Your task to perform on an android device: check android version Image 0: 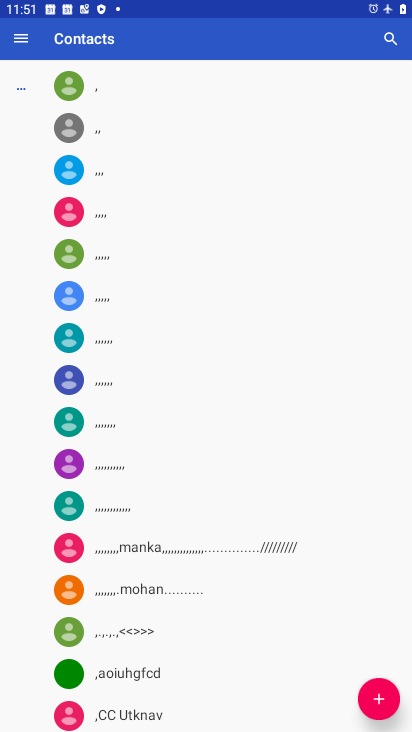
Step 0: press home button
Your task to perform on an android device: check android version Image 1: 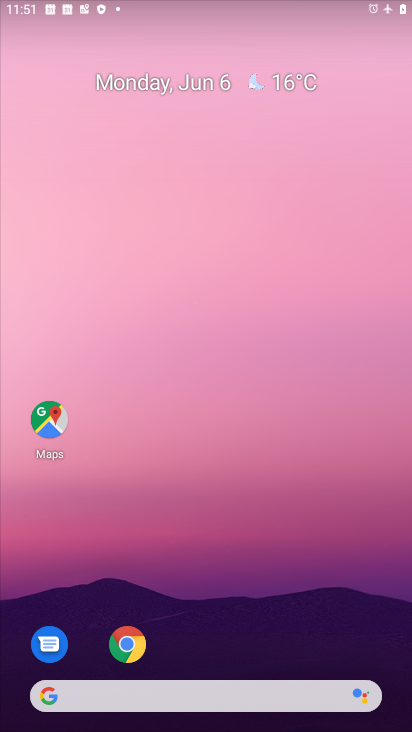
Step 1: drag from (290, 576) to (276, 49)
Your task to perform on an android device: check android version Image 2: 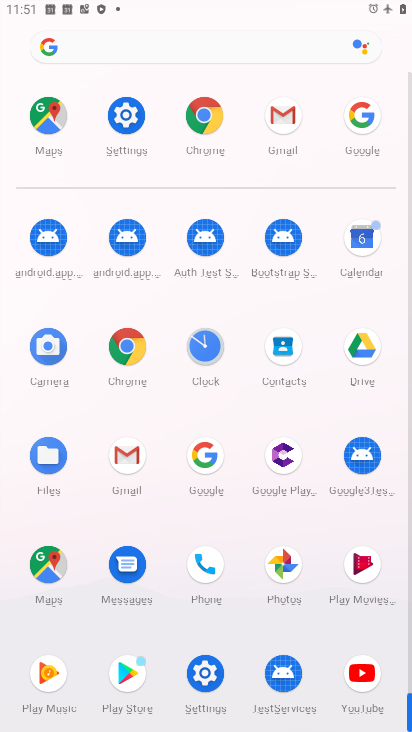
Step 2: click (194, 669)
Your task to perform on an android device: check android version Image 3: 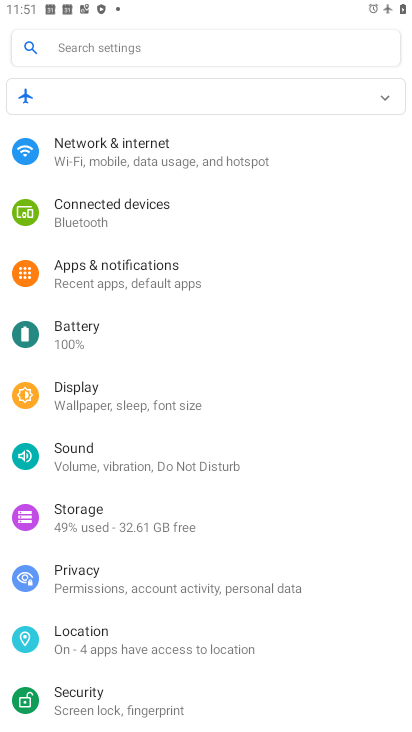
Step 3: drag from (295, 544) to (330, 51)
Your task to perform on an android device: check android version Image 4: 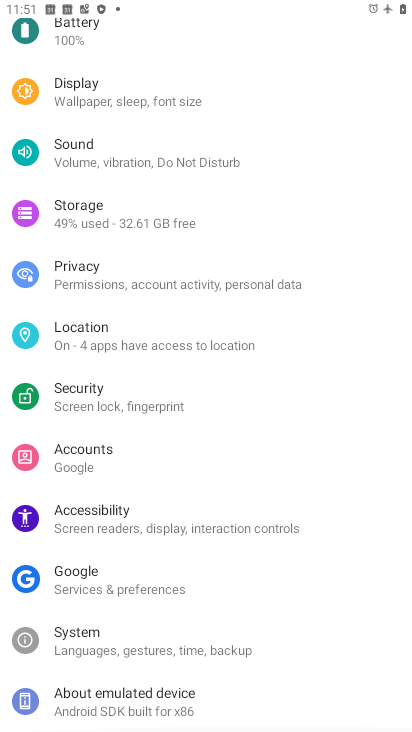
Step 4: drag from (244, 543) to (240, 308)
Your task to perform on an android device: check android version Image 5: 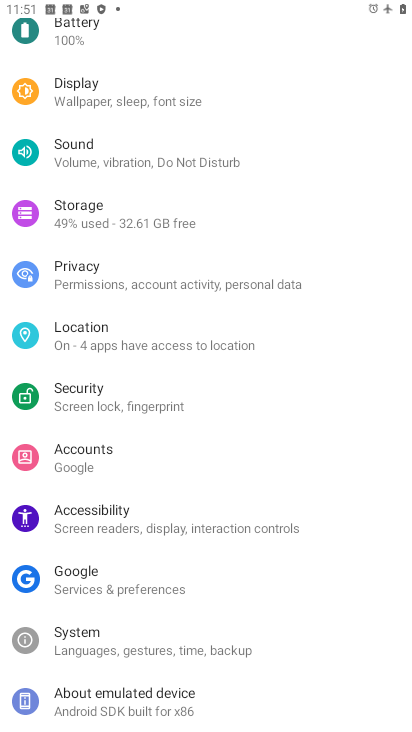
Step 5: click (187, 691)
Your task to perform on an android device: check android version Image 6: 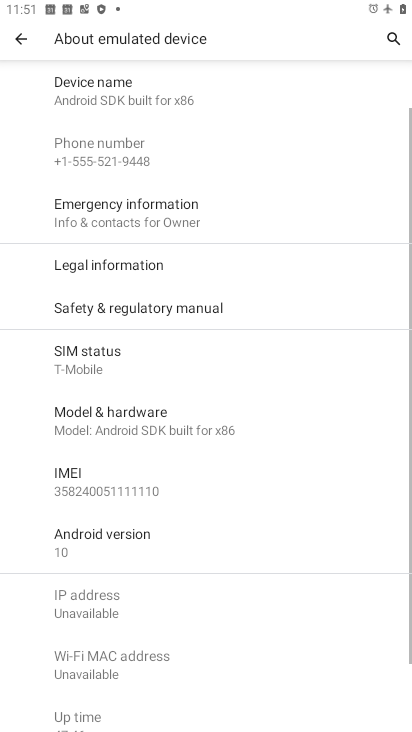
Step 6: click (139, 544)
Your task to perform on an android device: check android version Image 7: 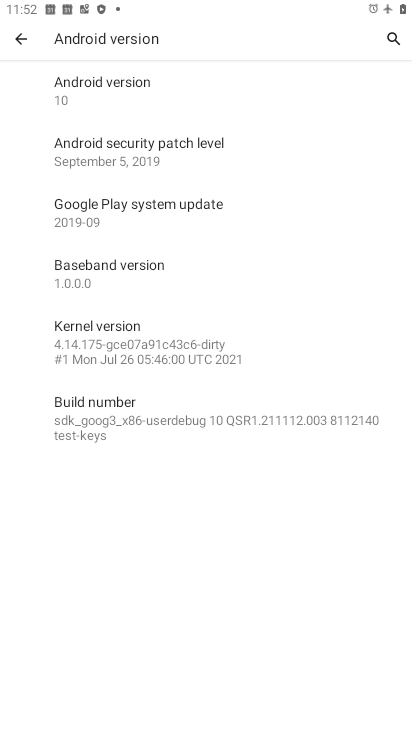
Step 7: task complete